Your task to perform on an android device: Add usb-c to usb-a to the cart on walmart.com Image 0: 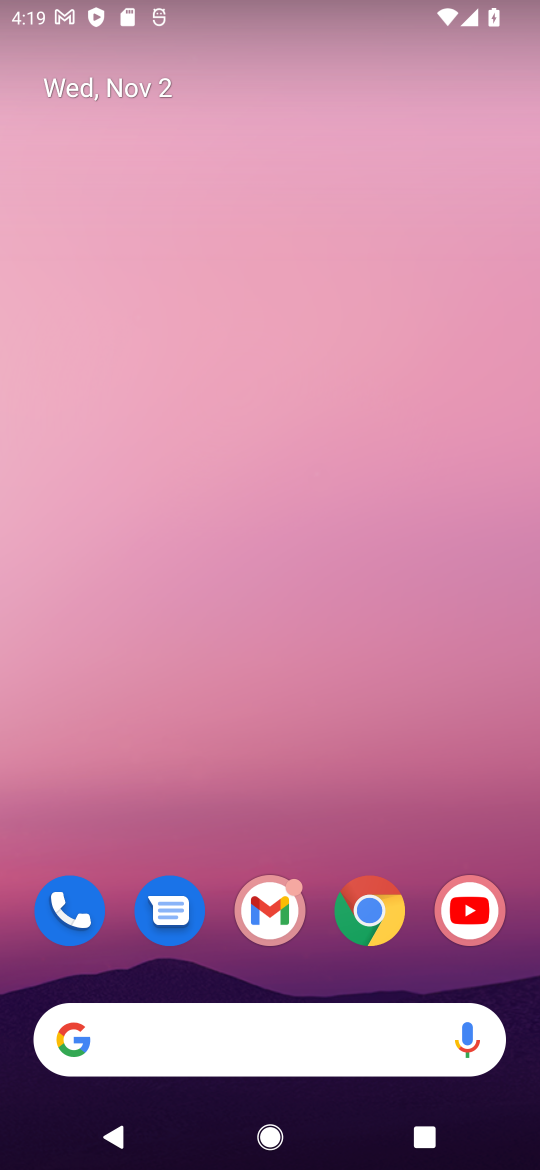
Step 0: click (368, 922)
Your task to perform on an android device: Add usb-c to usb-a to the cart on walmart.com Image 1: 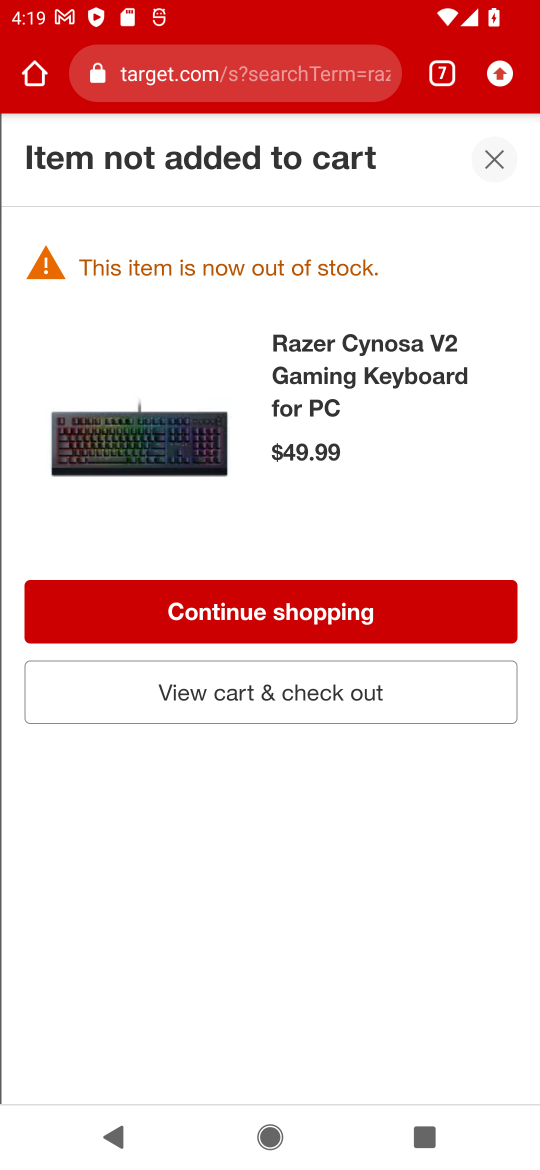
Step 1: click (445, 57)
Your task to perform on an android device: Add usb-c to usb-a to the cart on walmart.com Image 2: 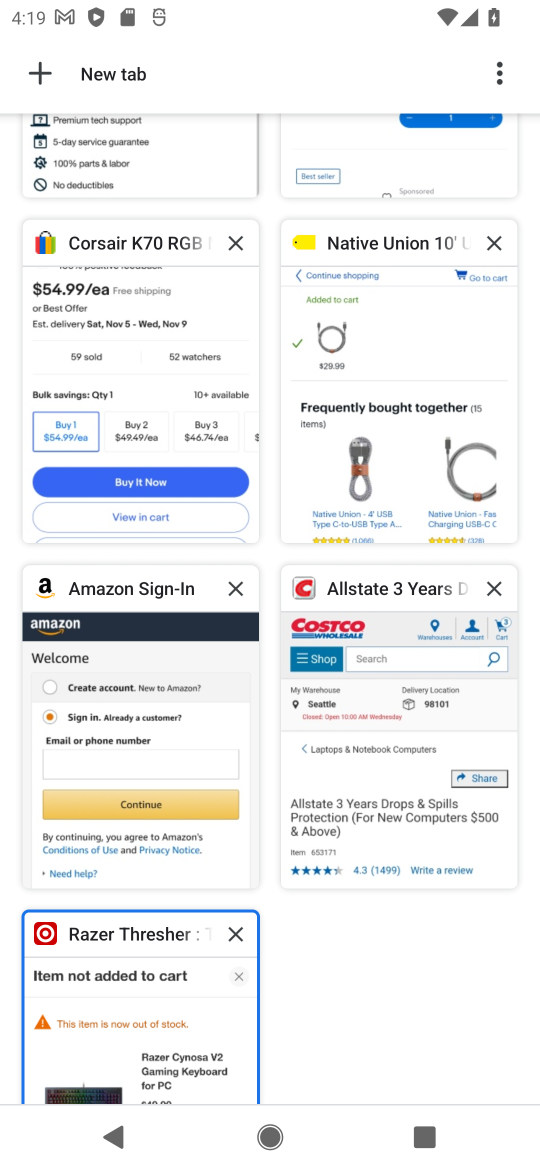
Step 2: click (413, 155)
Your task to perform on an android device: Add usb-c to usb-a to the cart on walmart.com Image 3: 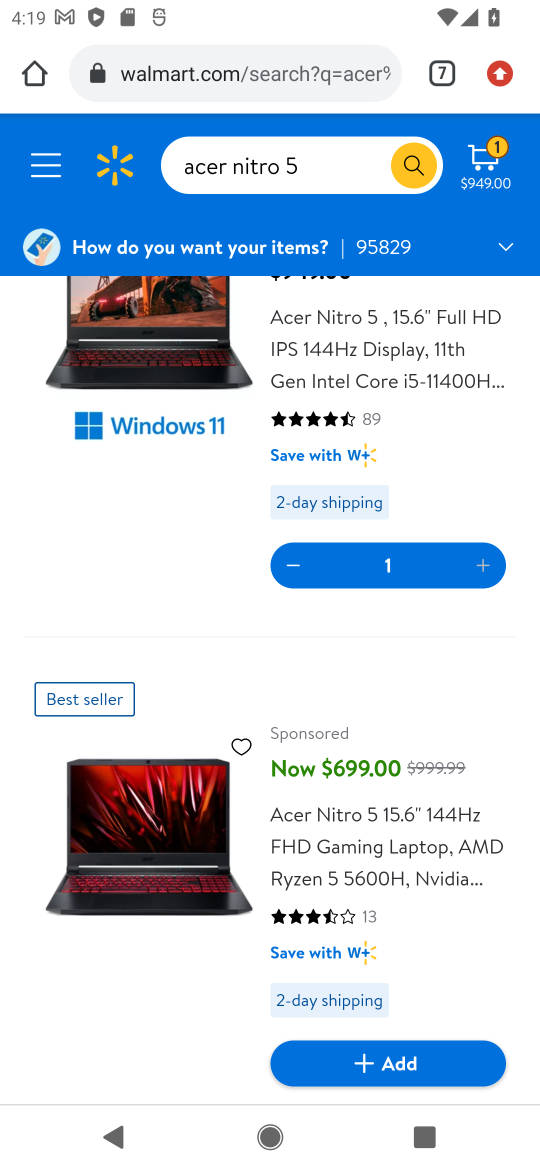
Step 3: click (323, 166)
Your task to perform on an android device: Add usb-c to usb-a to the cart on walmart.com Image 4: 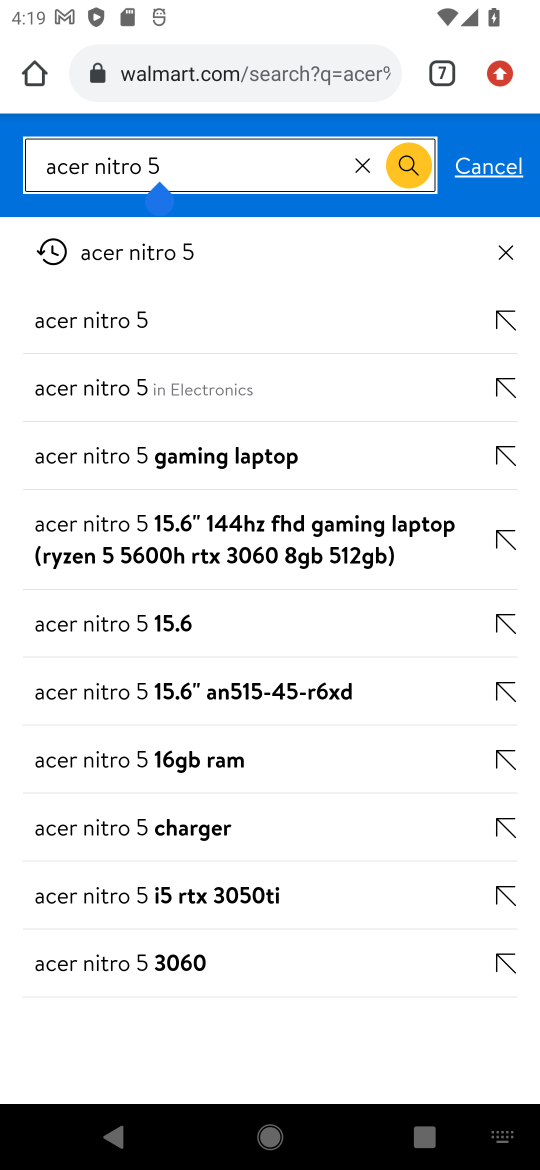
Step 4: click (358, 168)
Your task to perform on an android device: Add usb-c to usb-a to the cart on walmart.com Image 5: 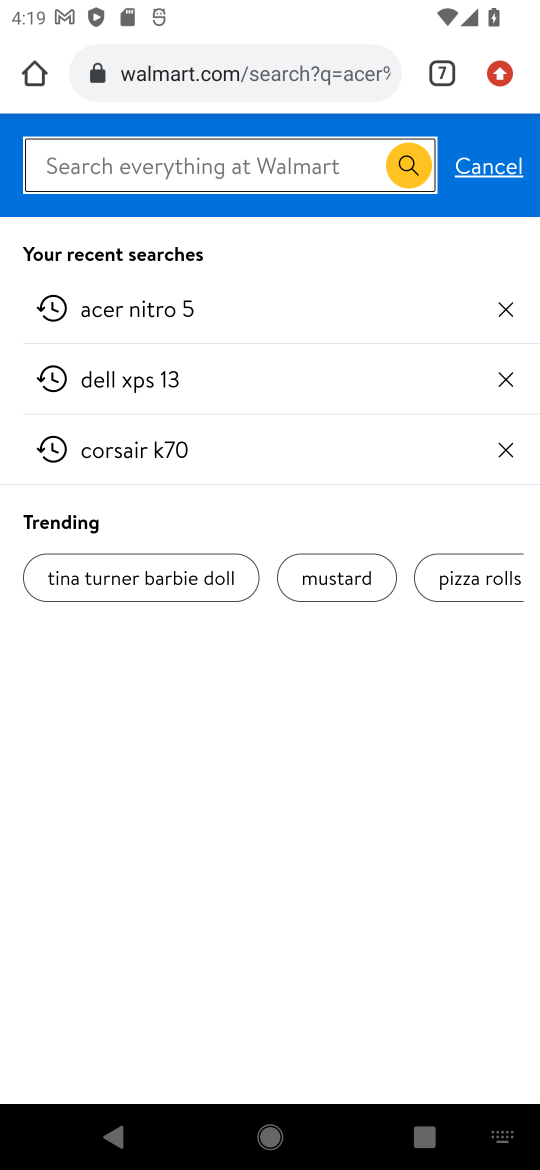
Step 5: type "usb-c to usb-a"
Your task to perform on an android device: Add usb-c to usb-a to the cart on walmart.com Image 6: 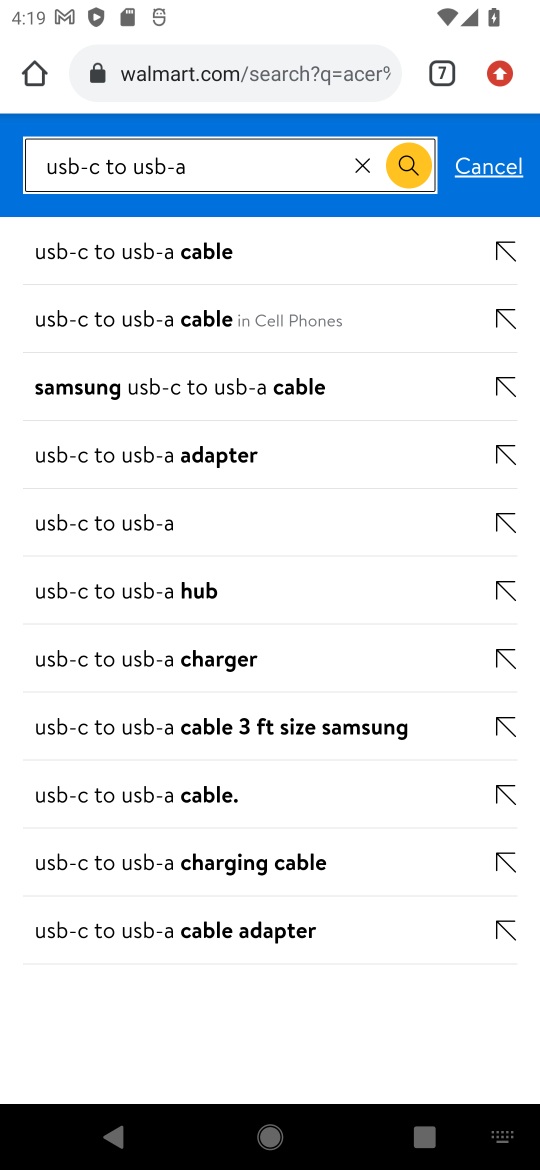
Step 6: click (219, 322)
Your task to perform on an android device: Add usb-c to usb-a to the cart on walmart.com Image 7: 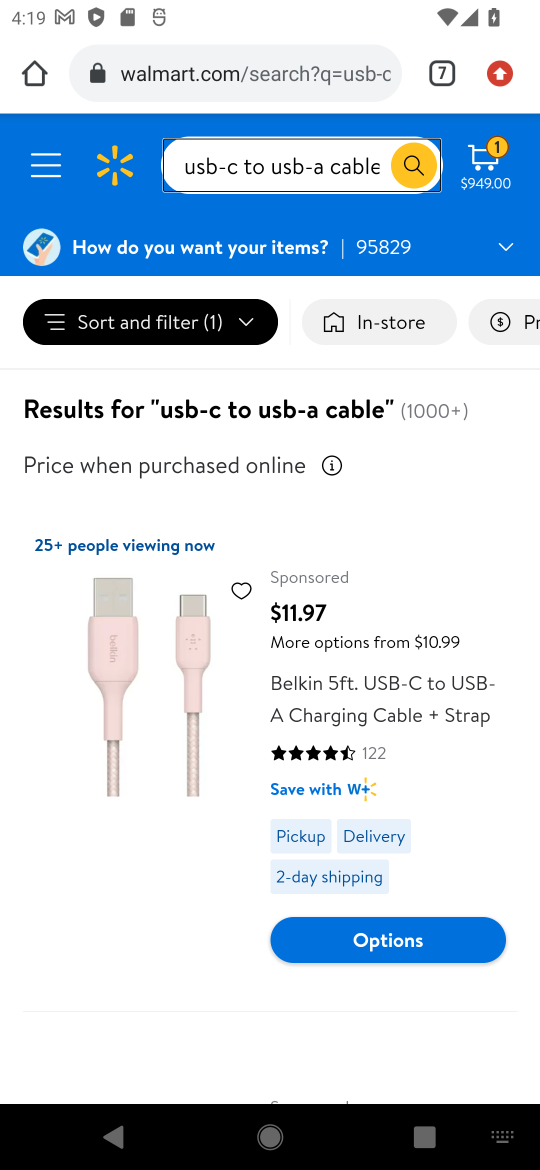
Step 7: click (407, 817)
Your task to perform on an android device: Add usb-c to usb-a to the cart on walmart.com Image 8: 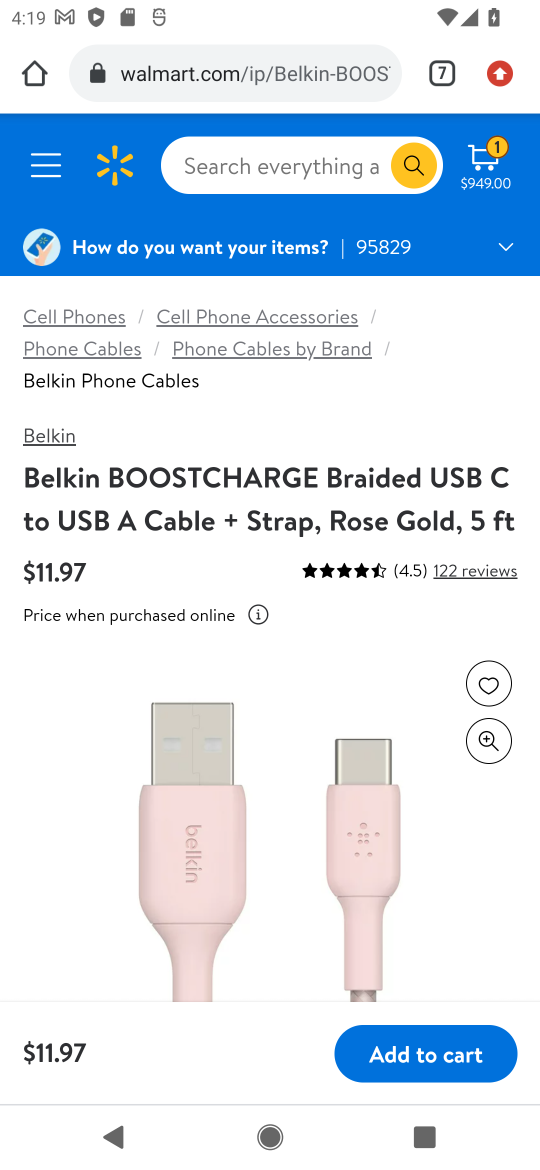
Step 8: click (461, 1055)
Your task to perform on an android device: Add usb-c to usb-a to the cart on walmart.com Image 9: 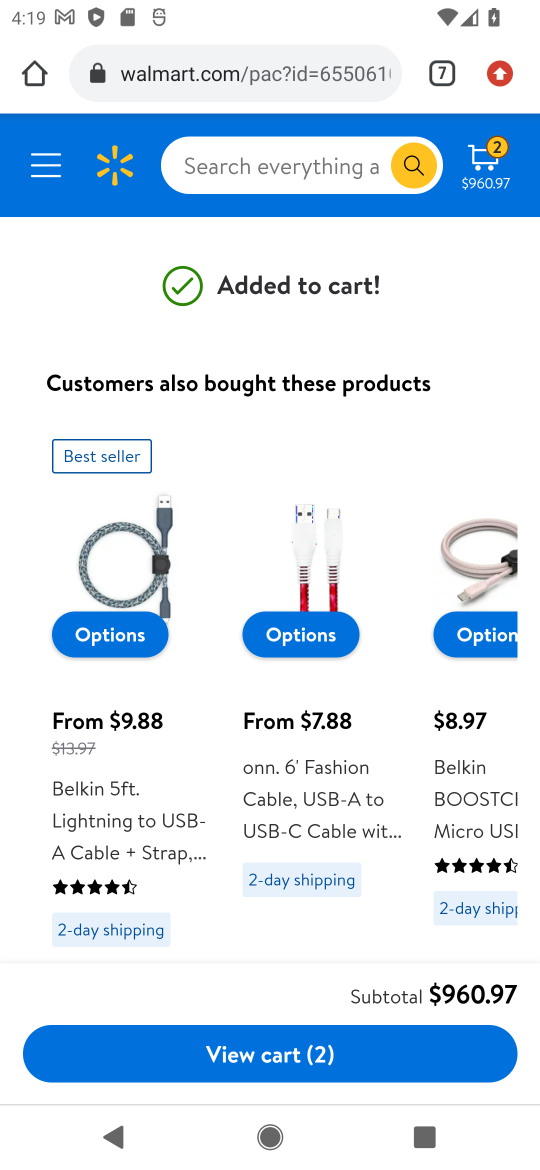
Step 9: task complete